Your task to perform on an android device: turn notification dots off Image 0: 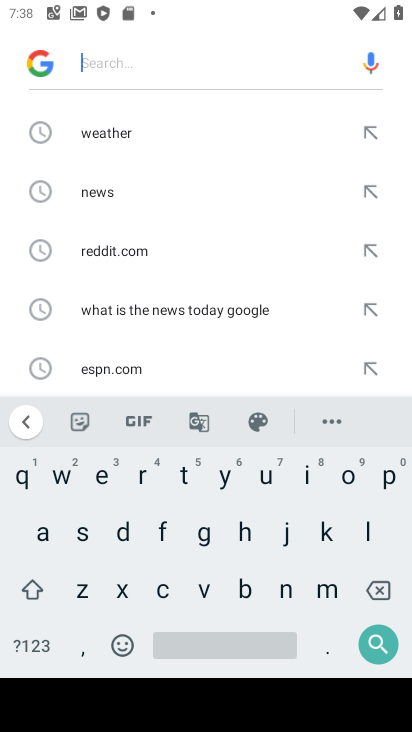
Step 0: press home button
Your task to perform on an android device: turn notification dots off Image 1: 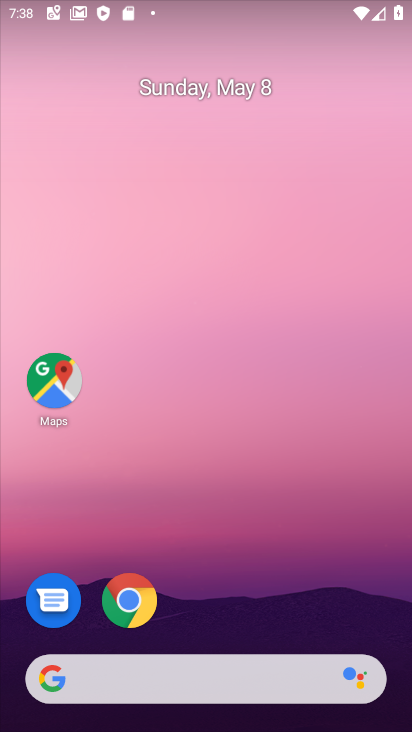
Step 1: drag from (324, 722) to (201, 192)
Your task to perform on an android device: turn notification dots off Image 2: 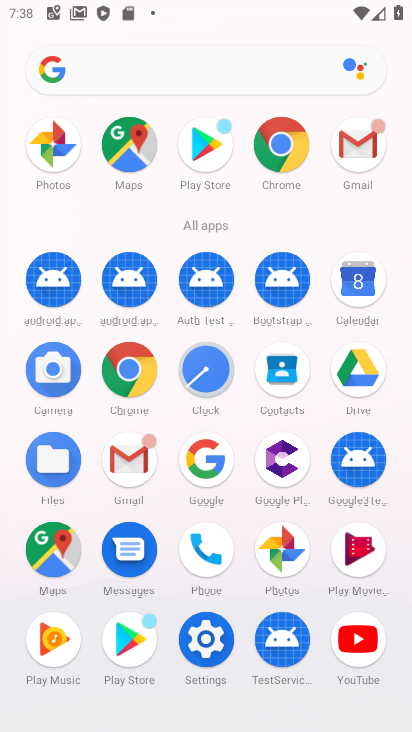
Step 2: click (202, 625)
Your task to perform on an android device: turn notification dots off Image 3: 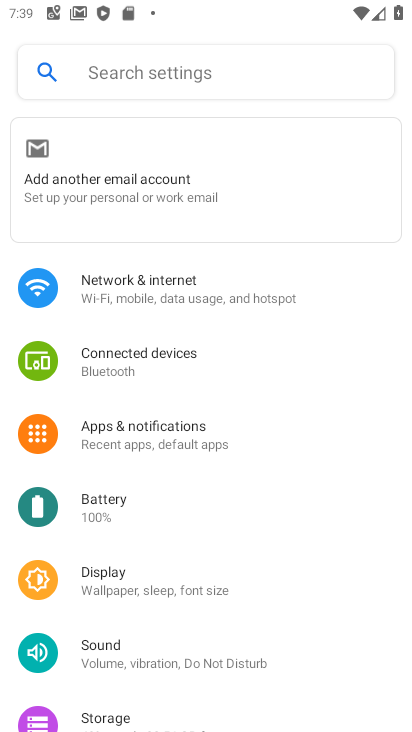
Step 3: click (185, 79)
Your task to perform on an android device: turn notification dots off Image 4: 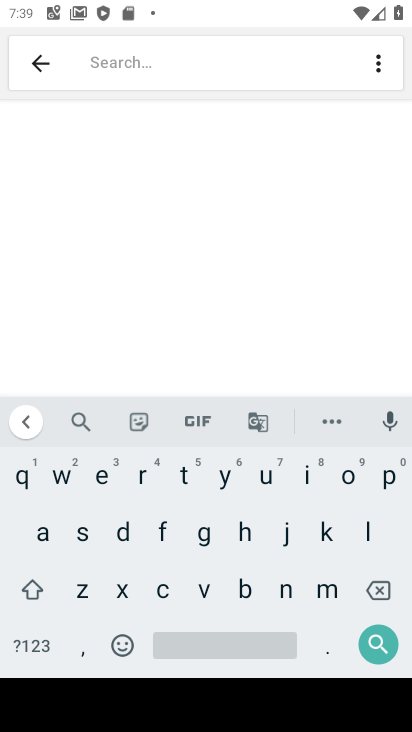
Step 4: click (114, 538)
Your task to perform on an android device: turn notification dots off Image 5: 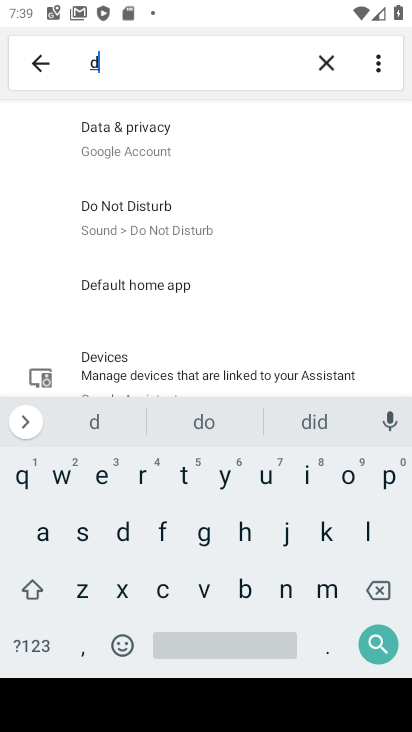
Step 5: click (340, 473)
Your task to perform on an android device: turn notification dots off Image 6: 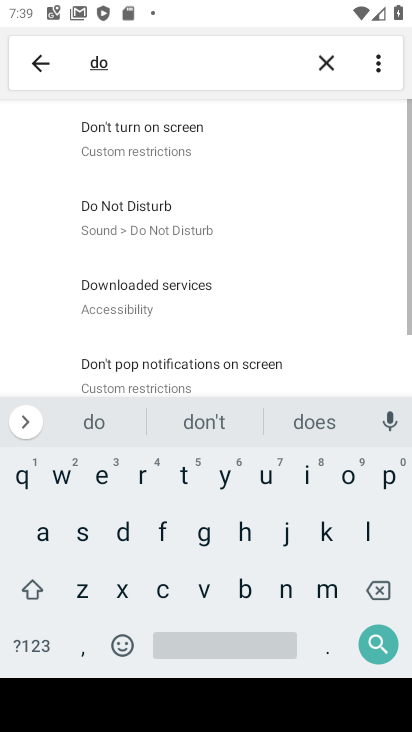
Step 6: click (184, 480)
Your task to perform on an android device: turn notification dots off Image 7: 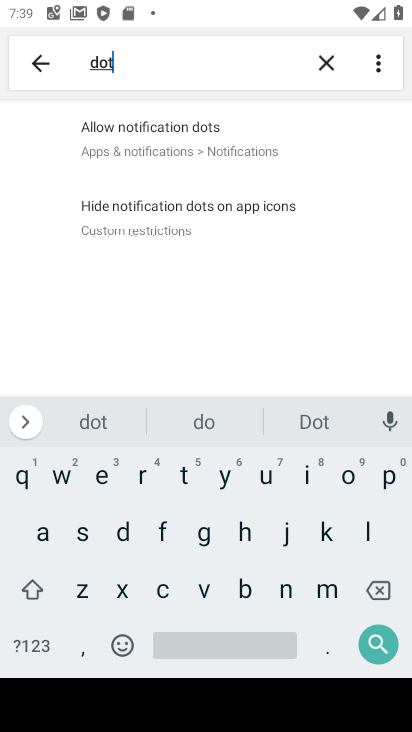
Step 7: click (145, 140)
Your task to perform on an android device: turn notification dots off Image 8: 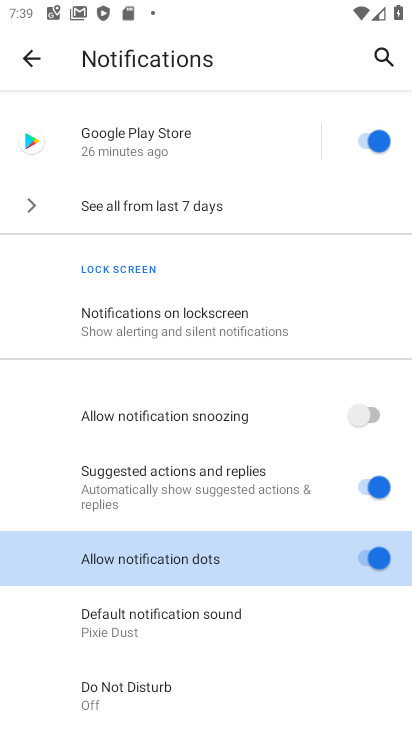
Step 8: click (232, 566)
Your task to perform on an android device: turn notification dots off Image 9: 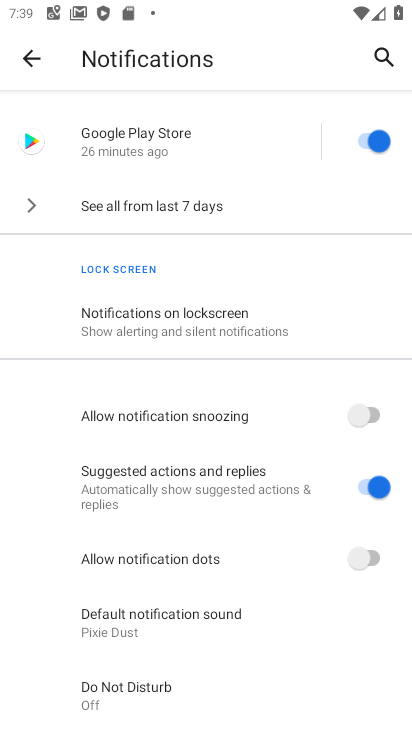
Step 9: task complete